Your task to perform on an android device: clear all cookies in the chrome app Image 0: 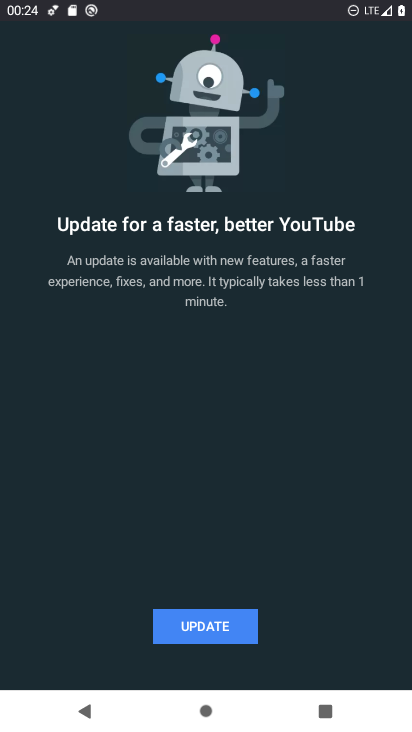
Step 0: press home button
Your task to perform on an android device: clear all cookies in the chrome app Image 1: 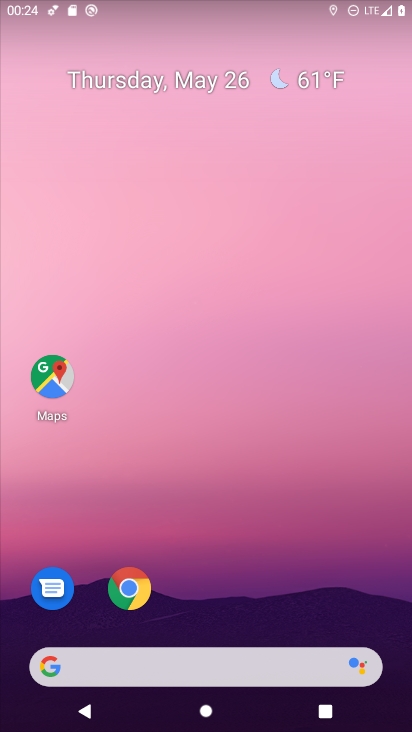
Step 1: click (136, 595)
Your task to perform on an android device: clear all cookies in the chrome app Image 2: 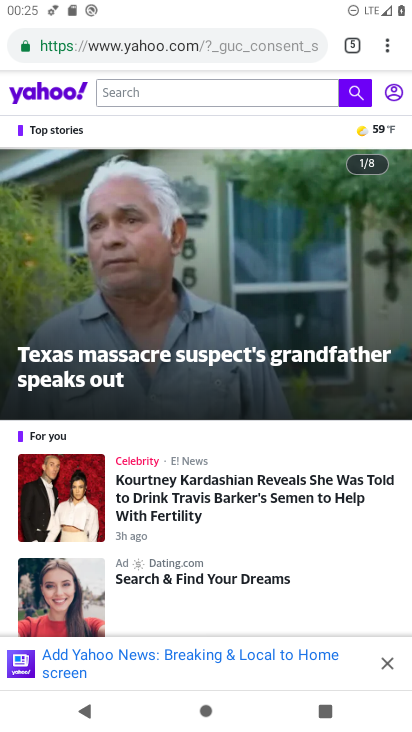
Step 2: click (385, 45)
Your task to perform on an android device: clear all cookies in the chrome app Image 3: 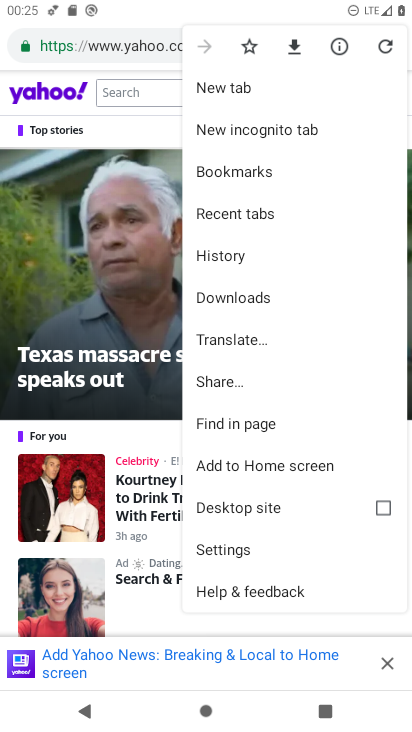
Step 3: click (238, 548)
Your task to perform on an android device: clear all cookies in the chrome app Image 4: 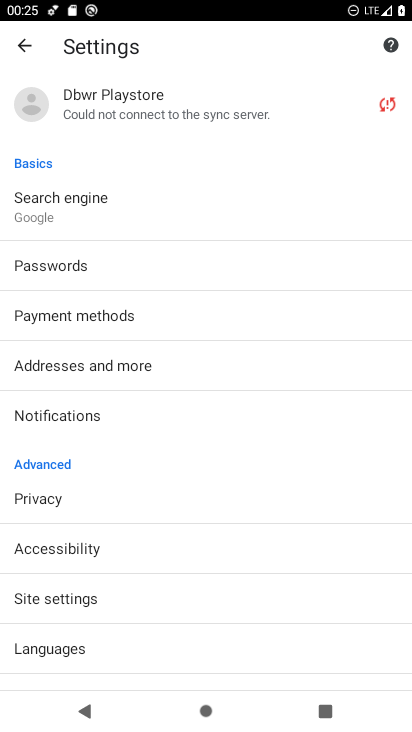
Step 4: click (59, 496)
Your task to perform on an android device: clear all cookies in the chrome app Image 5: 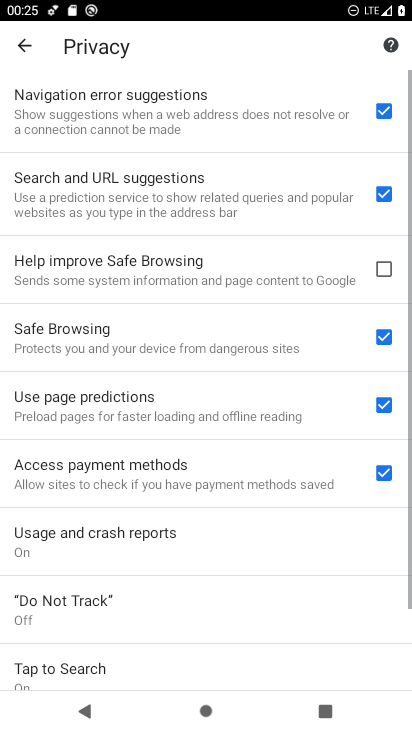
Step 5: drag from (215, 604) to (103, 181)
Your task to perform on an android device: clear all cookies in the chrome app Image 6: 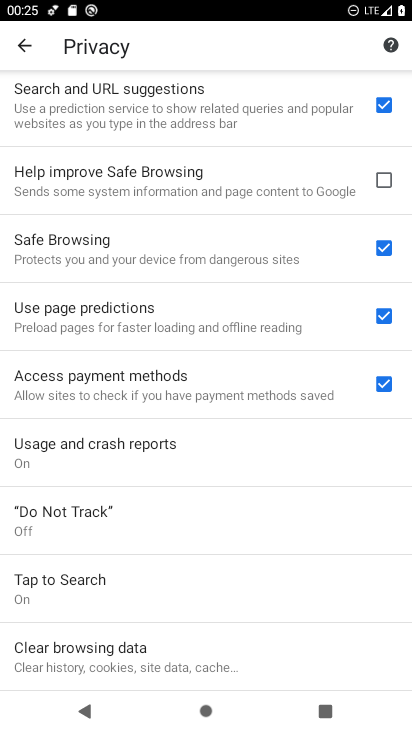
Step 6: click (107, 643)
Your task to perform on an android device: clear all cookies in the chrome app Image 7: 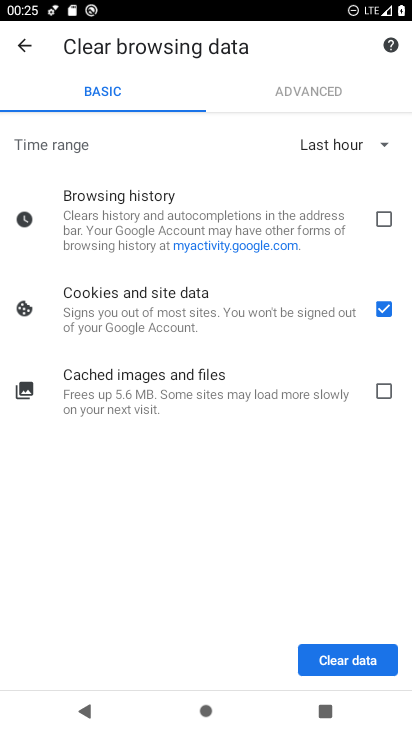
Step 7: click (359, 661)
Your task to perform on an android device: clear all cookies in the chrome app Image 8: 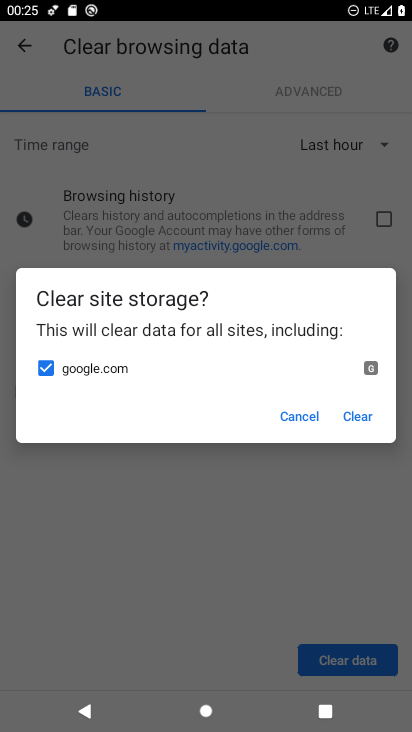
Step 8: click (359, 410)
Your task to perform on an android device: clear all cookies in the chrome app Image 9: 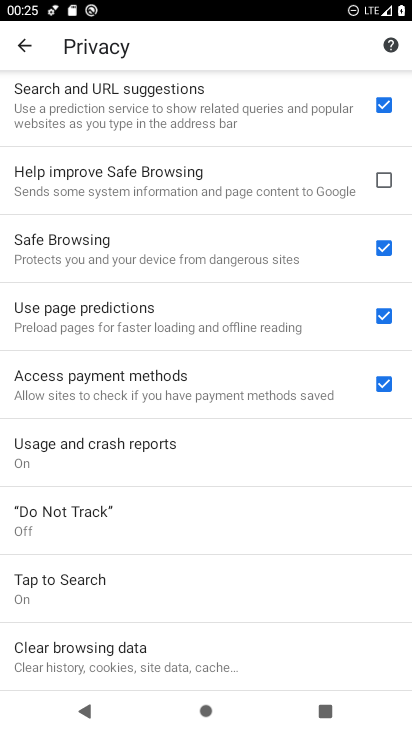
Step 9: task complete